Your task to perform on an android device: Open Google Chrome Image 0: 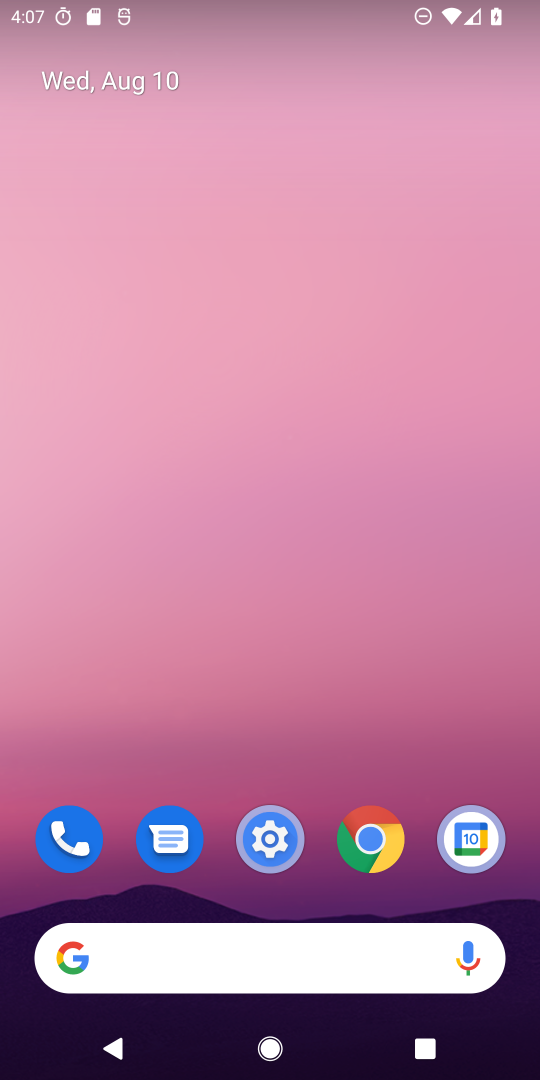
Step 0: click (357, 838)
Your task to perform on an android device: Open Google Chrome Image 1: 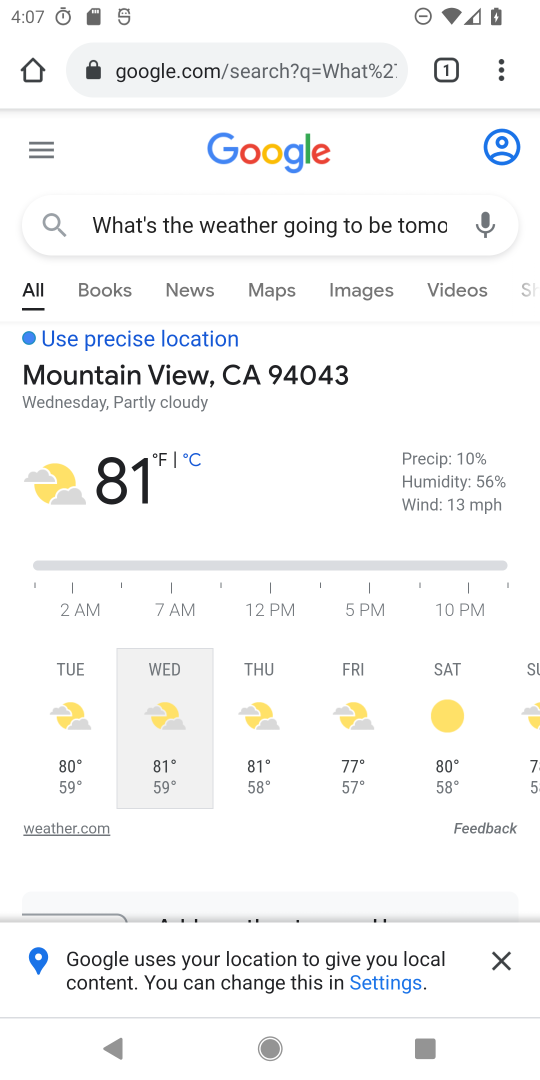
Step 1: task complete